Your task to perform on an android device: Clear the cart on ebay. Search for "macbook air" on ebay, select the first entry, add it to the cart, then select checkout. Image 0: 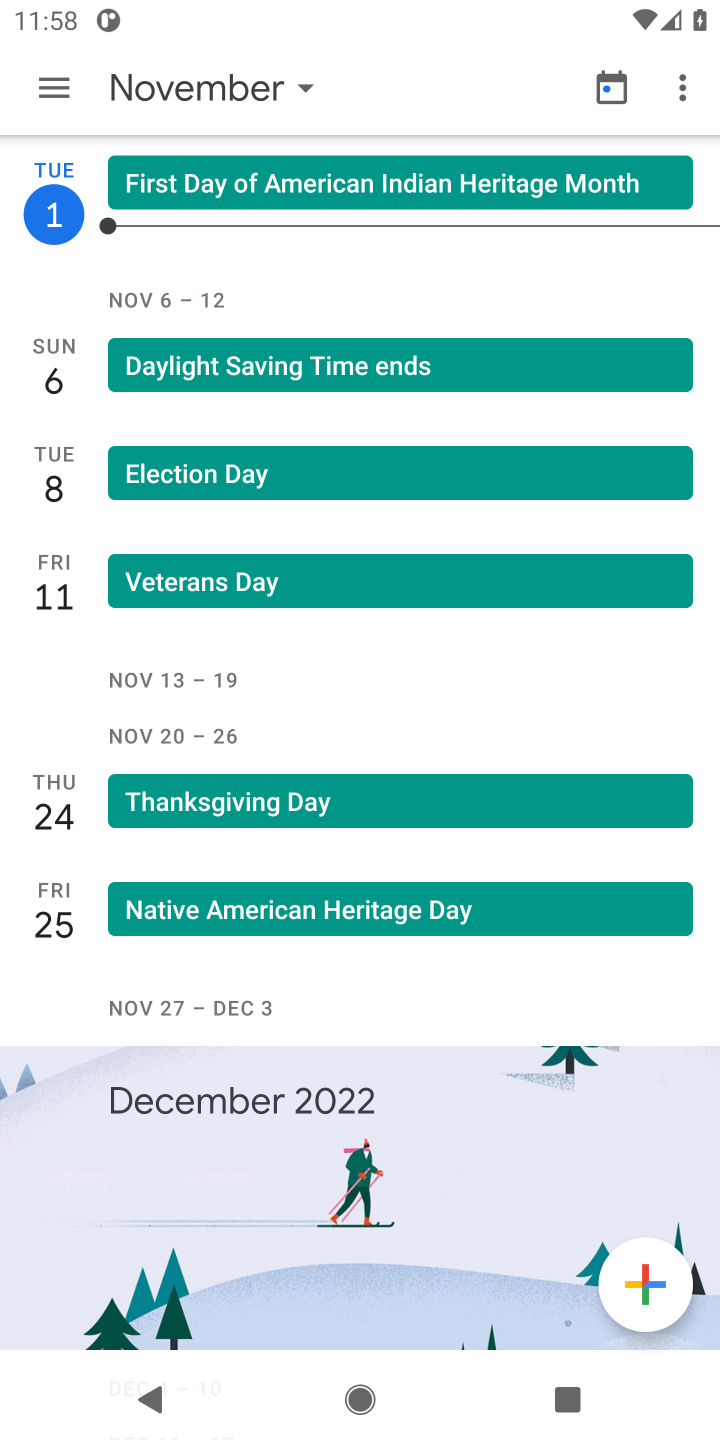
Step 0: press home button
Your task to perform on an android device: Clear the cart on ebay. Search for "macbook air" on ebay, select the first entry, add it to the cart, then select checkout. Image 1: 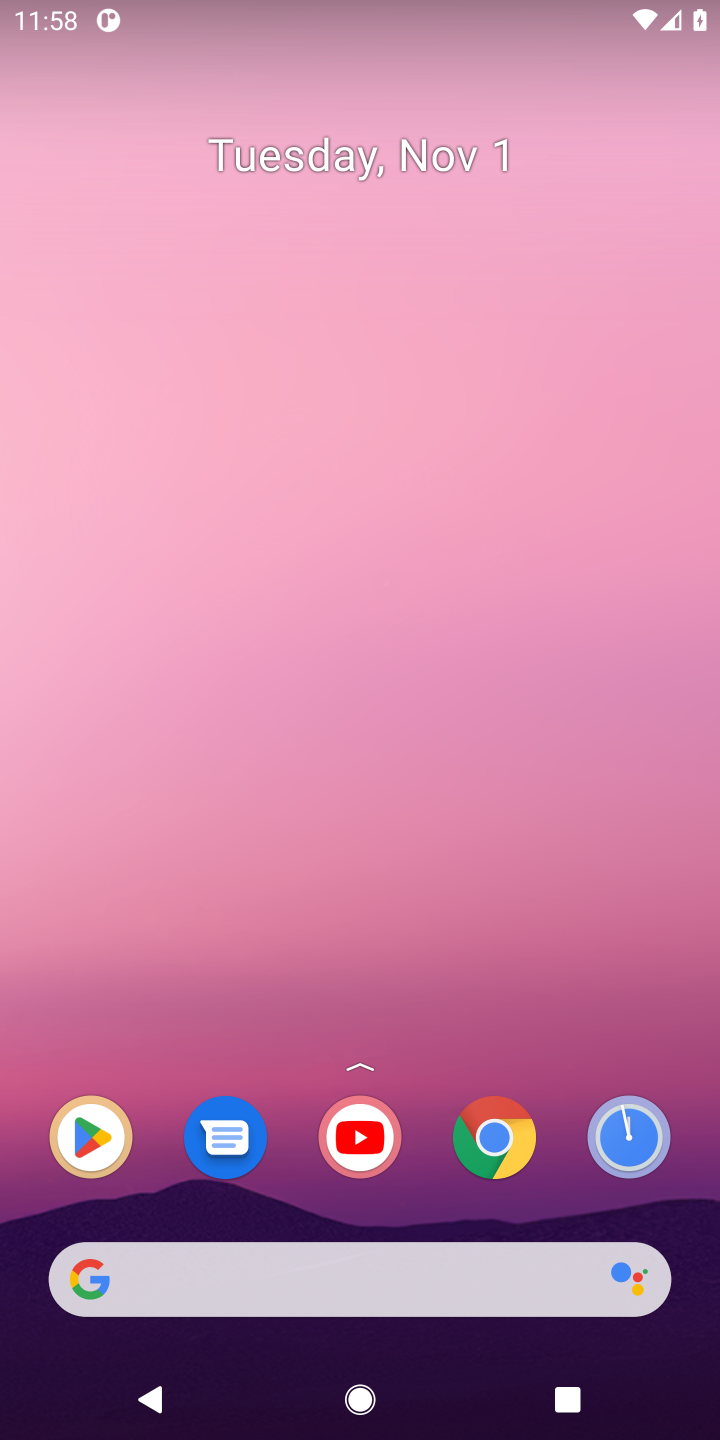
Step 1: click (316, 1259)
Your task to perform on an android device: Clear the cart on ebay. Search for "macbook air" on ebay, select the first entry, add it to the cart, then select checkout. Image 2: 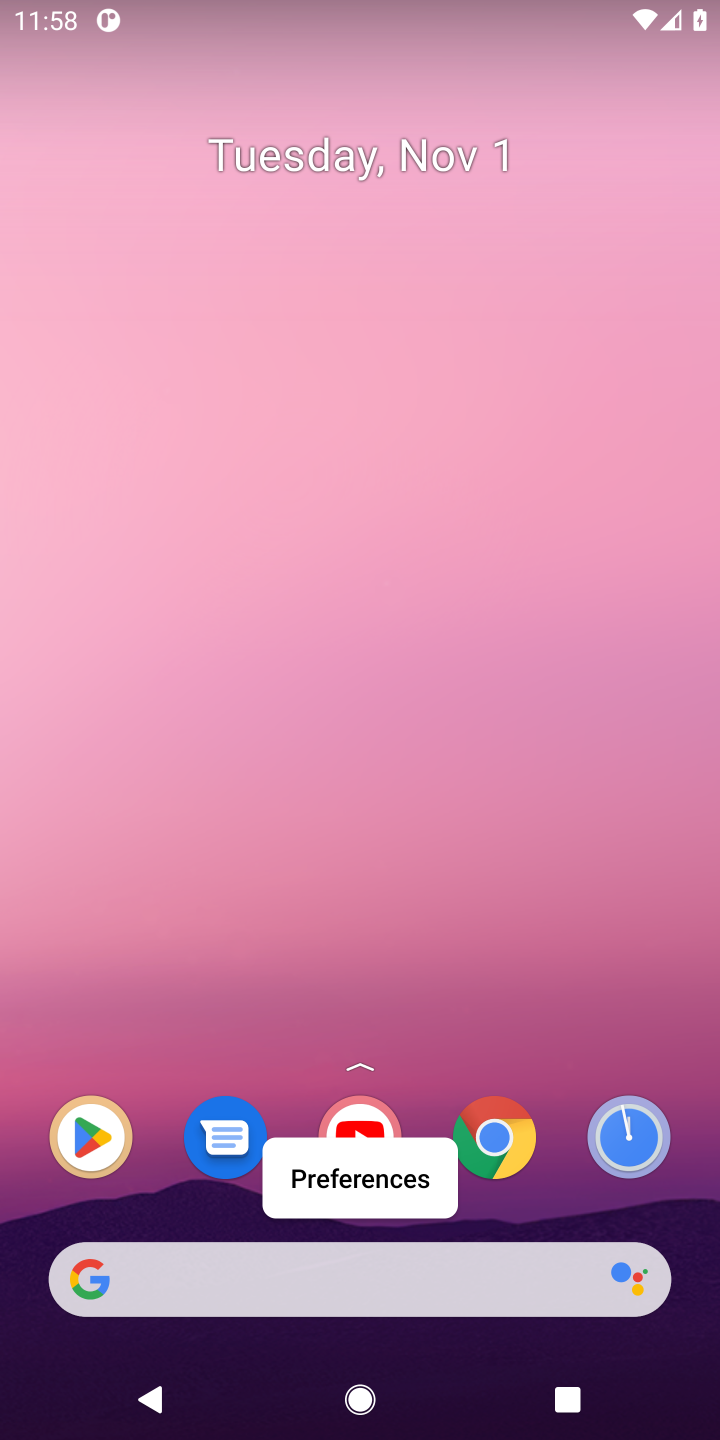
Step 2: click (318, 1261)
Your task to perform on an android device: Clear the cart on ebay. Search for "macbook air" on ebay, select the first entry, add it to the cart, then select checkout. Image 3: 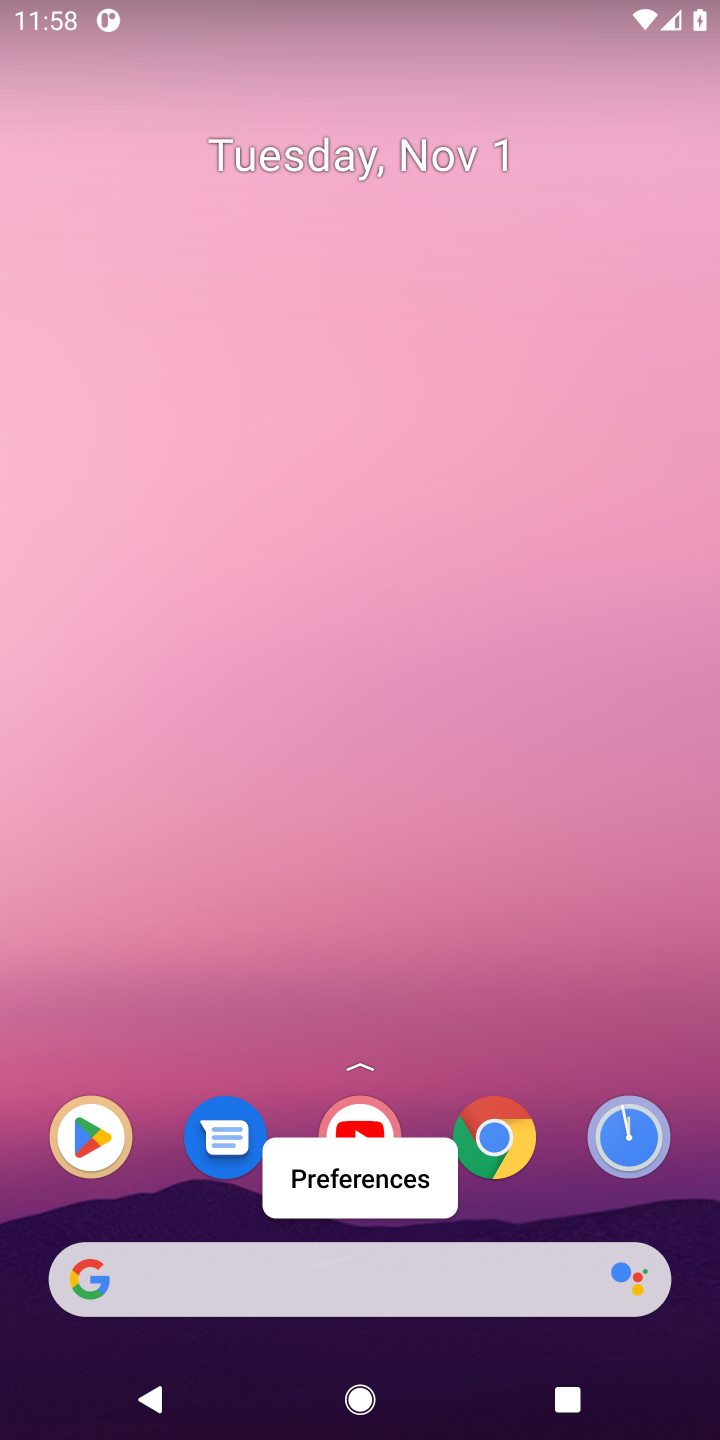
Step 3: click (295, 1298)
Your task to perform on an android device: Clear the cart on ebay. Search for "macbook air" on ebay, select the first entry, add it to the cart, then select checkout. Image 4: 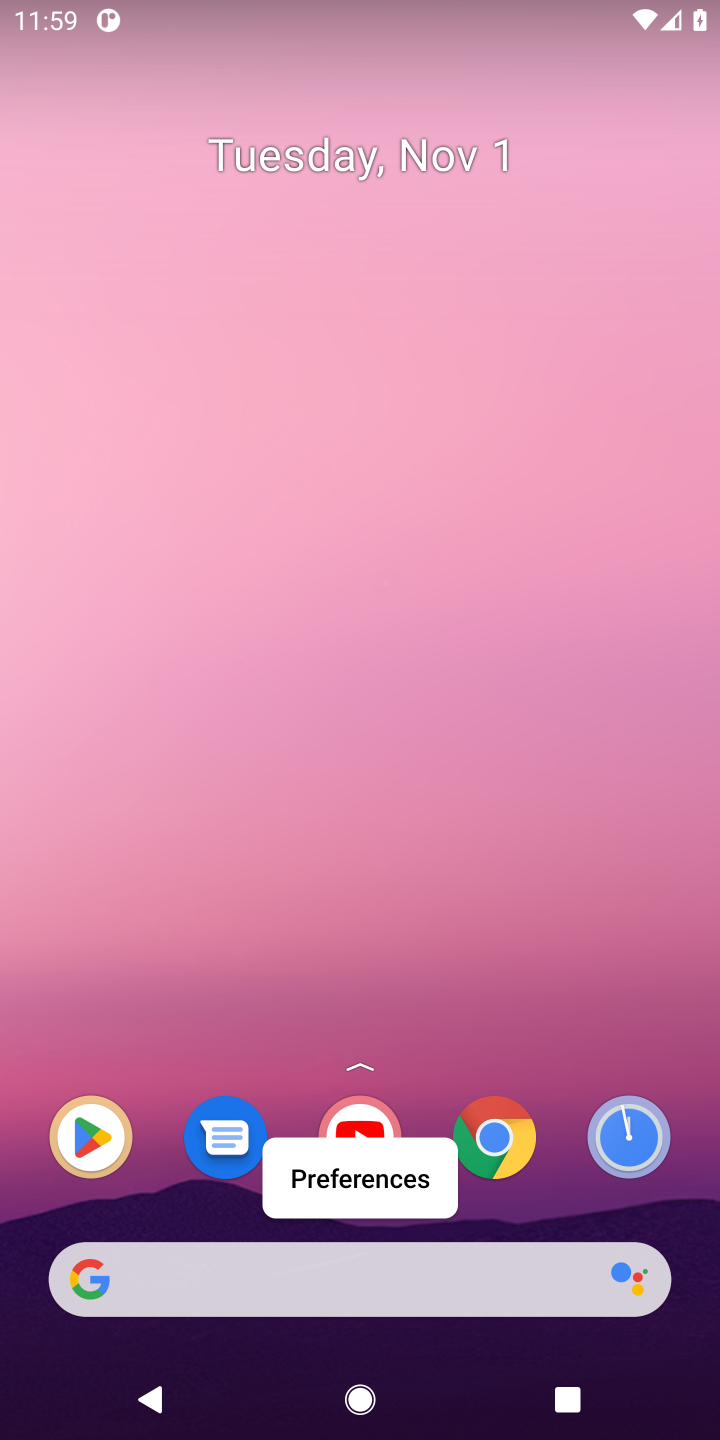
Step 4: click (317, 1280)
Your task to perform on an android device: Clear the cart on ebay. Search for "macbook air" on ebay, select the first entry, add it to the cart, then select checkout. Image 5: 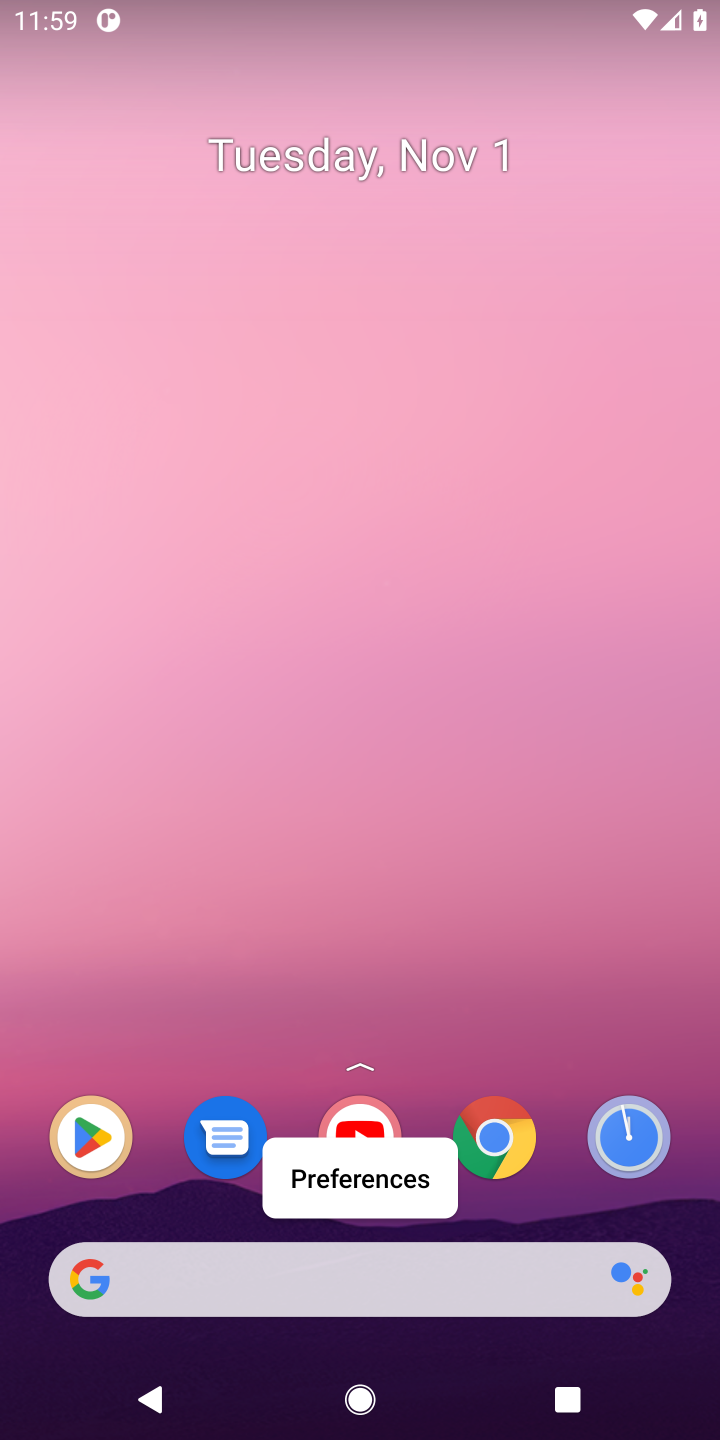
Step 5: click (315, 1283)
Your task to perform on an android device: Clear the cart on ebay. Search for "macbook air" on ebay, select the first entry, add it to the cart, then select checkout. Image 6: 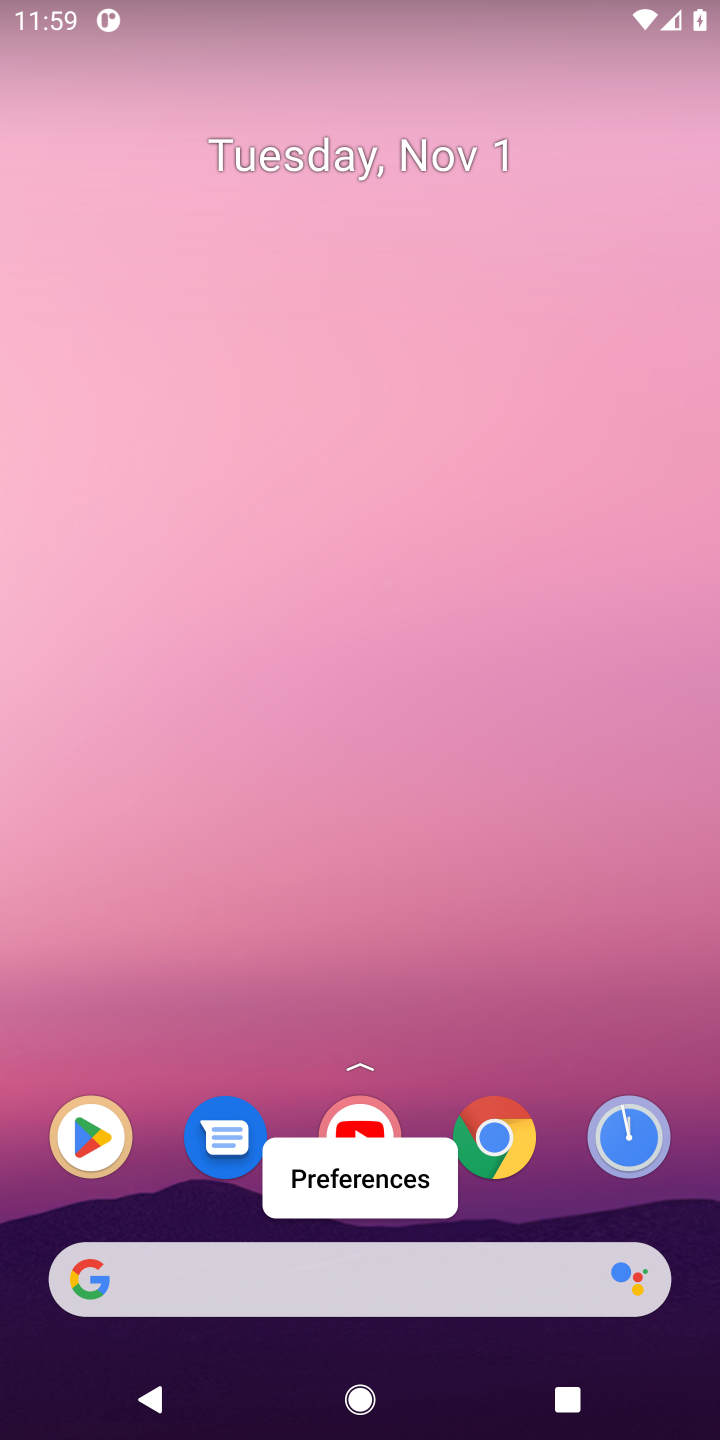
Step 6: click (518, 1142)
Your task to perform on an android device: Clear the cart on ebay. Search for "macbook air" on ebay, select the first entry, add it to the cart, then select checkout. Image 7: 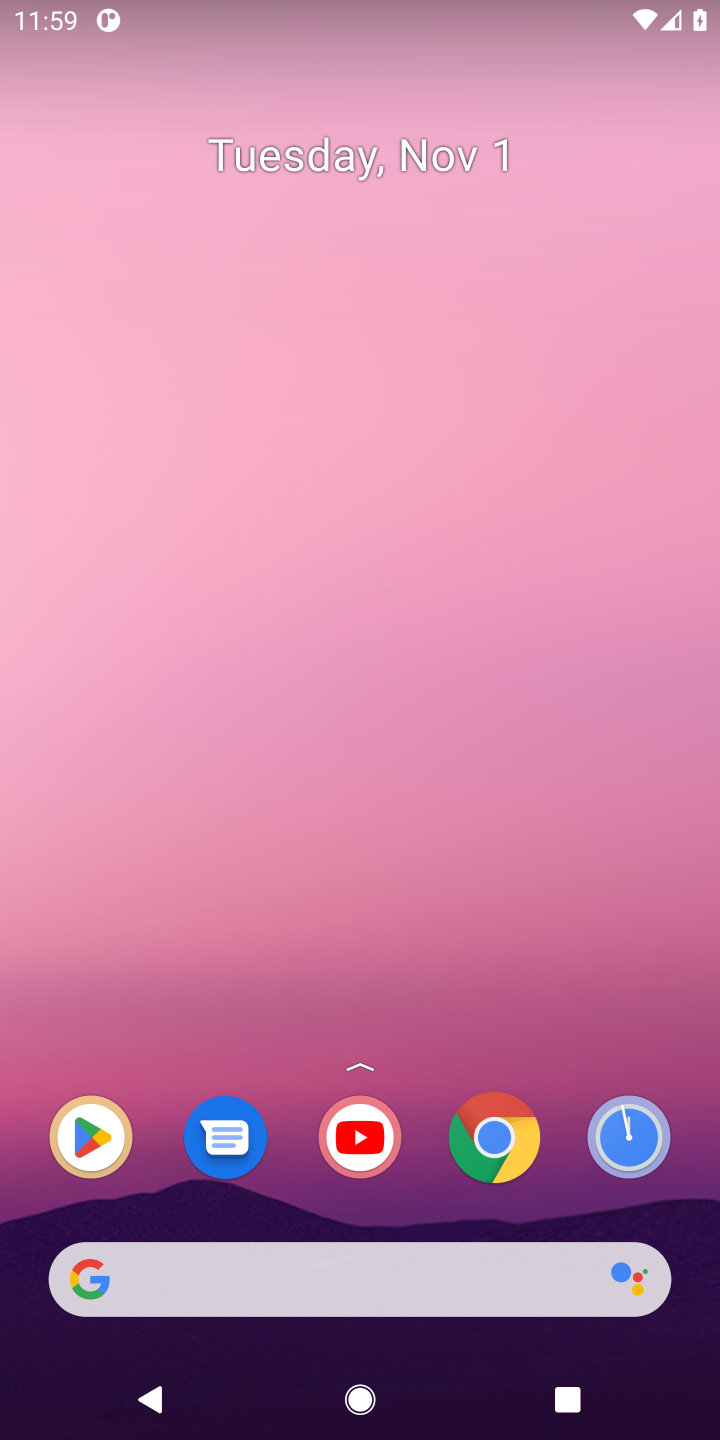
Step 7: click (518, 1142)
Your task to perform on an android device: Clear the cart on ebay. Search for "macbook air" on ebay, select the first entry, add it to the cart, then select checkout. Image 8: 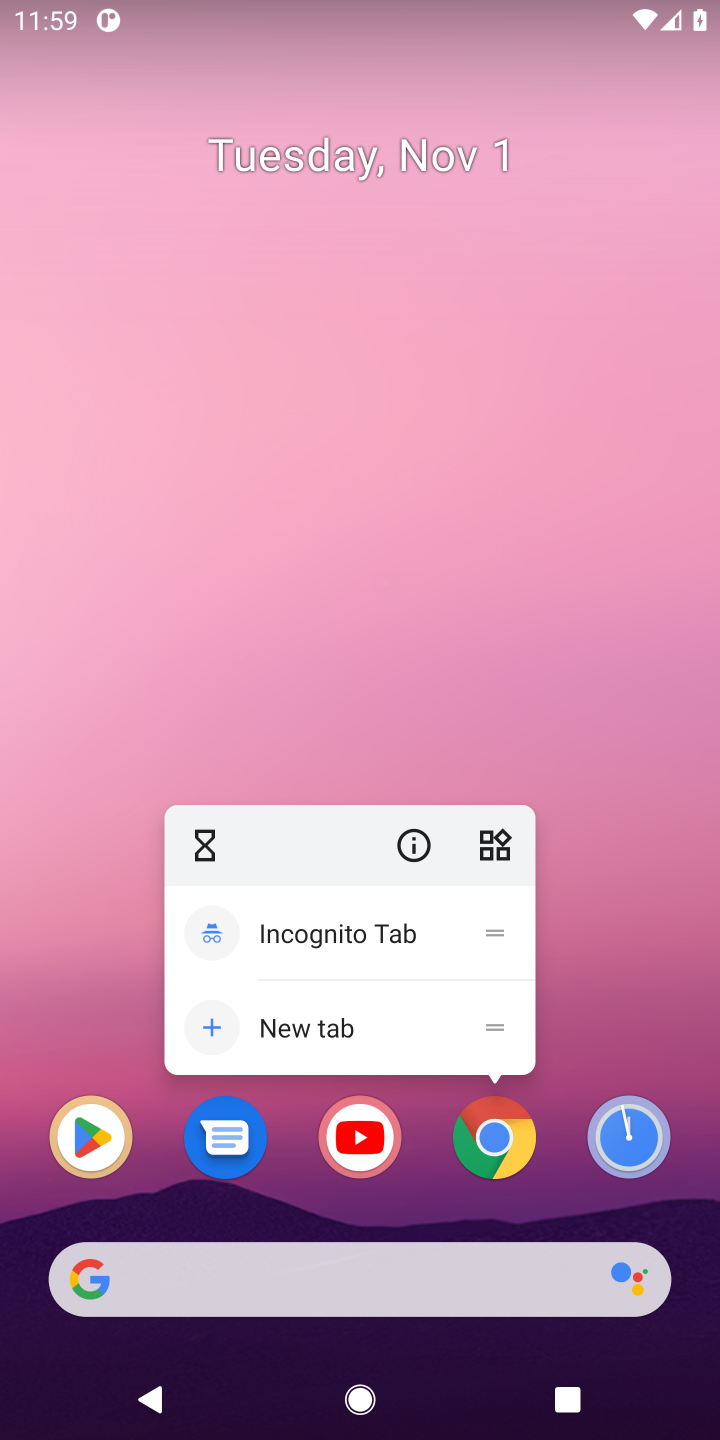
Step 8: click (496, 1147)
Your task to perform on an android device: Clear the cart on ebay. Search for "macbook air" on ebay, select the first entry, add it to the cart, then select checkout. Image 9: 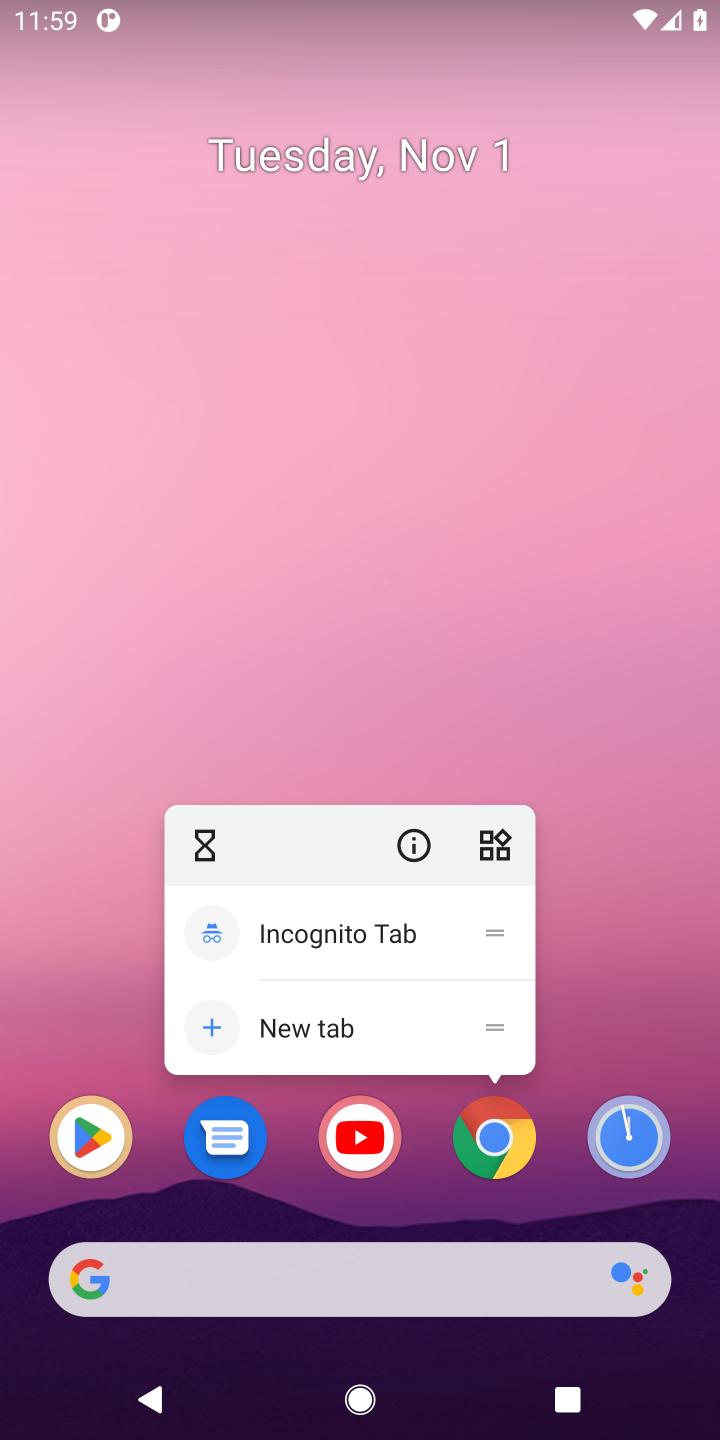
Step 9: click (496, 1147)
Your task to perform on an android device: Clear the cart on ebay. Search for "macbook air" on ebay, select the first entry, add it to the cart, then select checkout. Image 10: 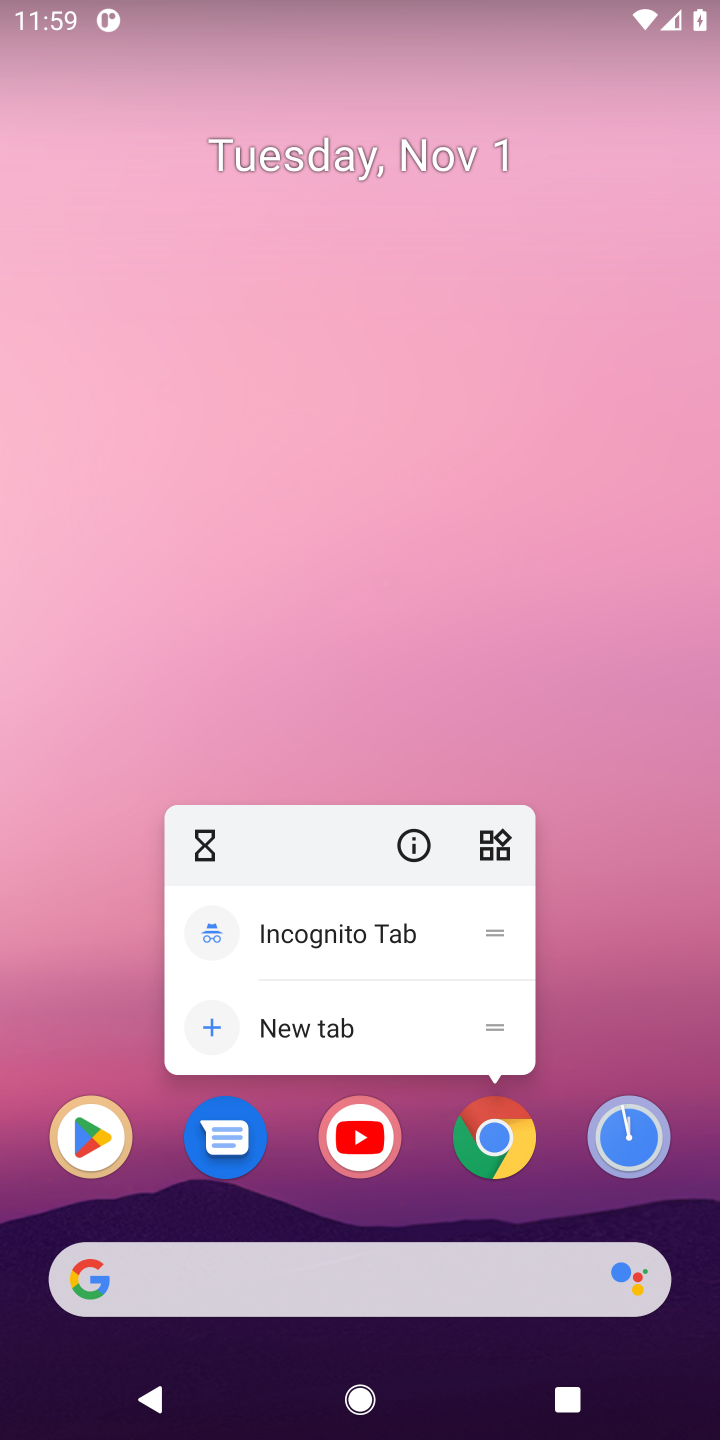
Step 10: click (496, 1147)
Your task to perform on an android device: Clear the cart on ebay. Search for "macbook air" on ebay, select the first entry, add it to the cart, then select checkout. Image 11: 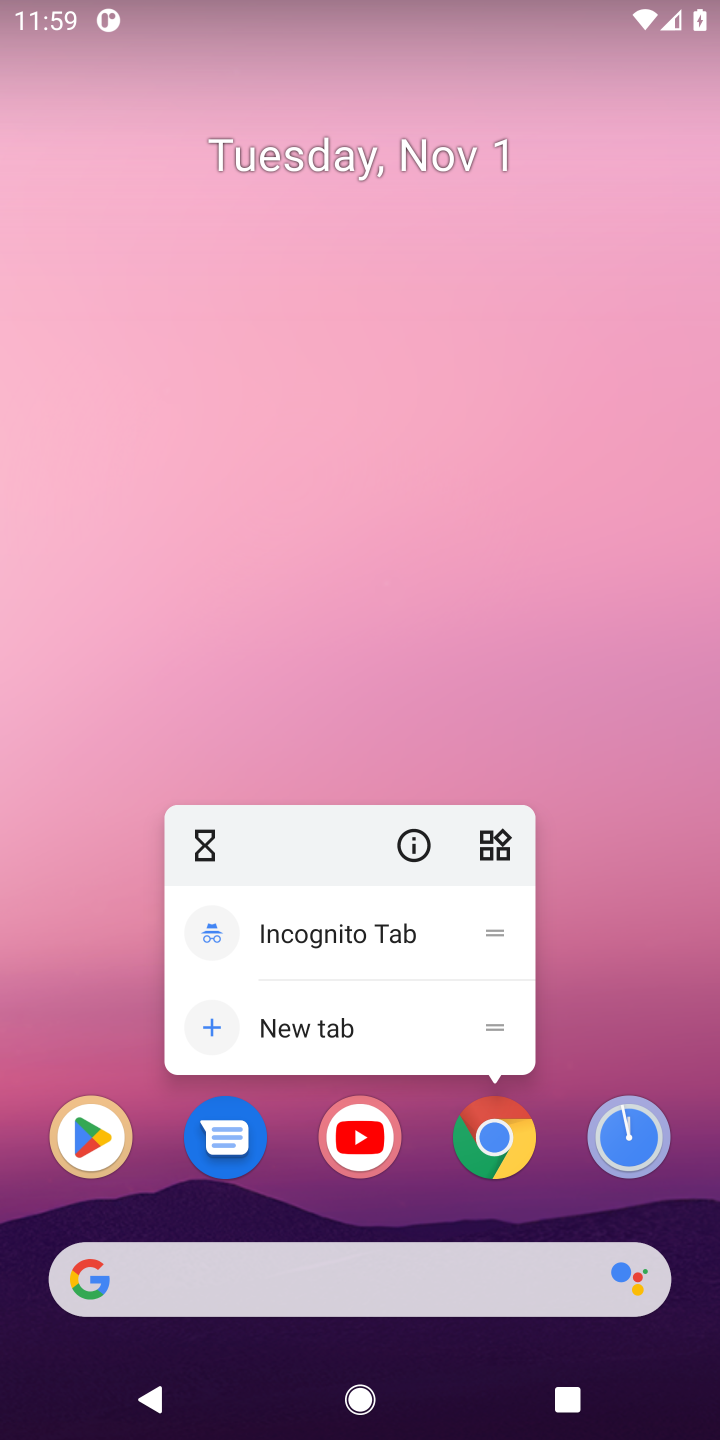
Step 11: click (496, 1147)
Your task to perform on an android device: Clear the cart on ebay. Search for "macbook air" on ebay, select the first entry, add it to the cart, then select checkout. Image 12: 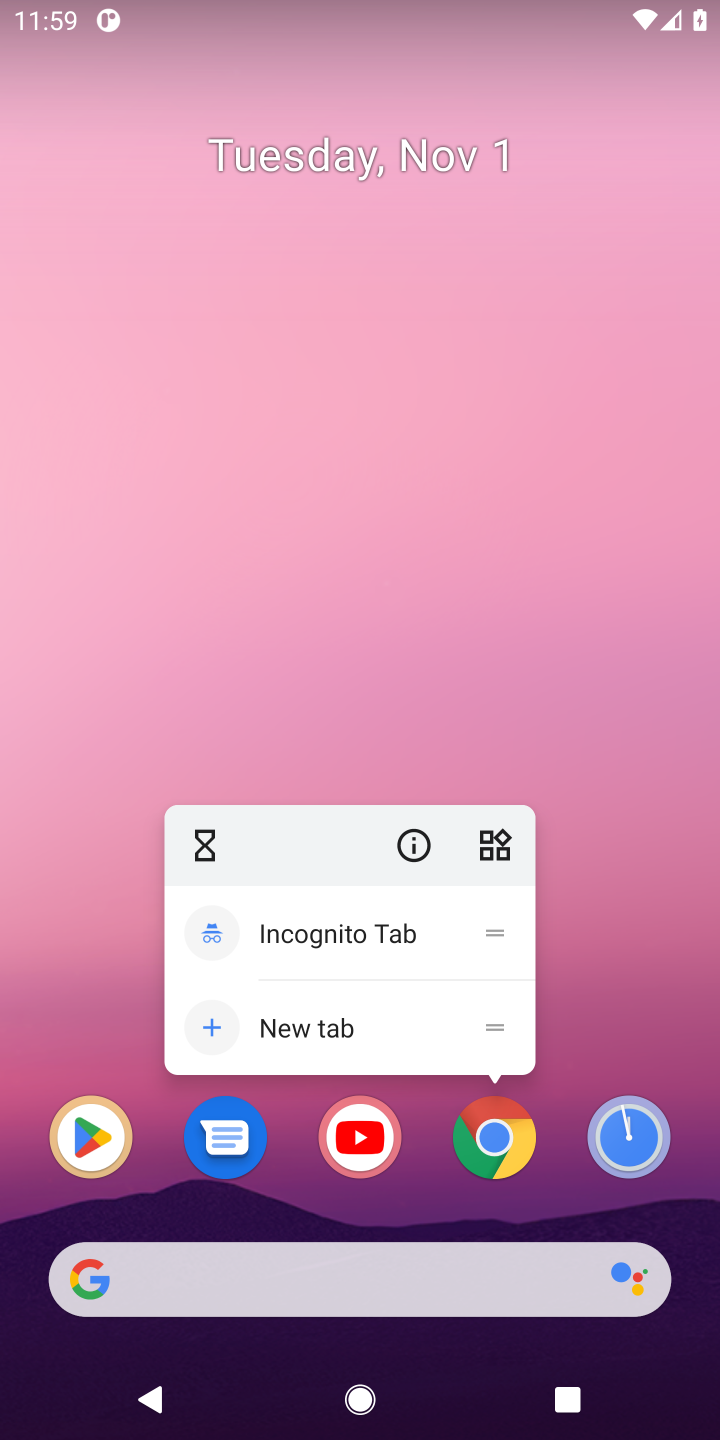
Step 12: click (235, 463)
Your task to perform on an android device: Clear the cart on ebay. Search for "macbook air" on ebay, select the first entry, add it to the cart, then select checkout. Image 13: 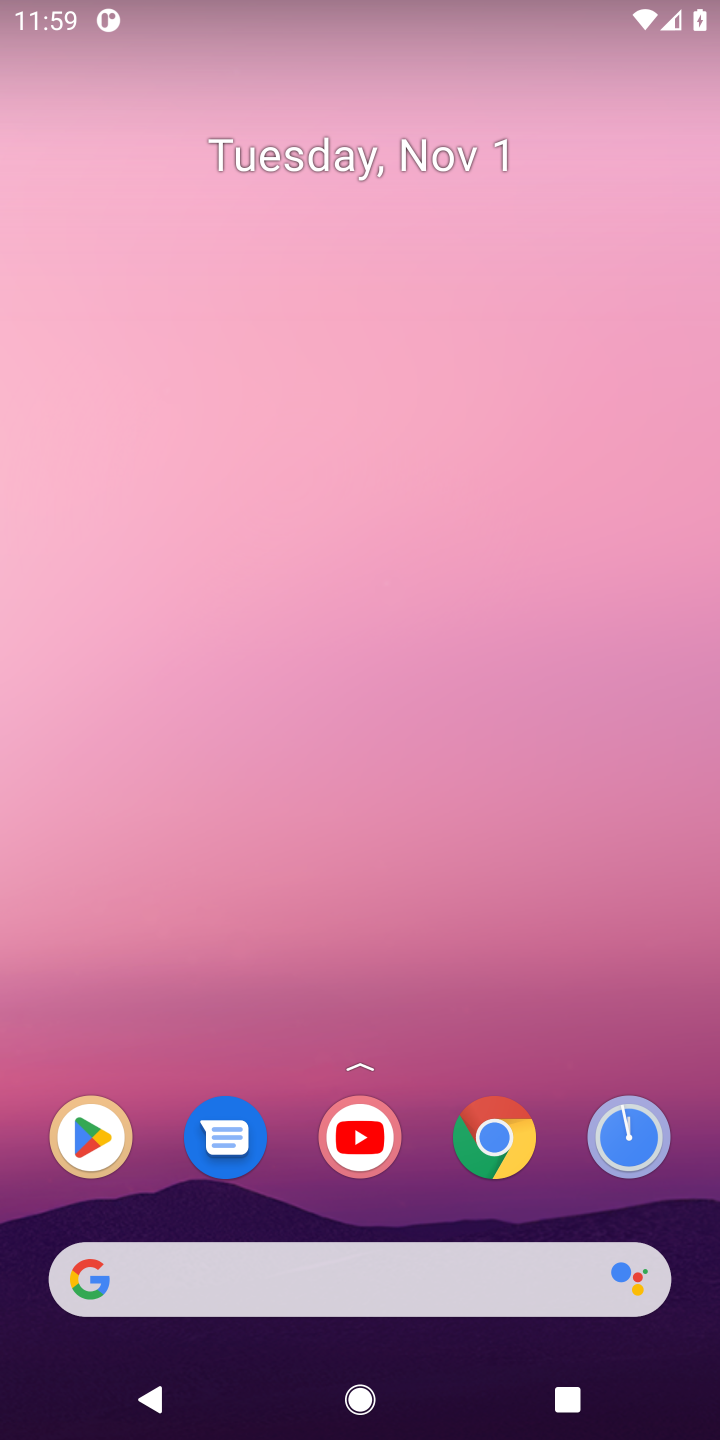
Step 13: click (476, 1115)
Your task to perform on an android device: Clear the cart on ebay. Search for "macbook air" on ebay, select the first entry, add it to the cart, then select checkout. Image 14: 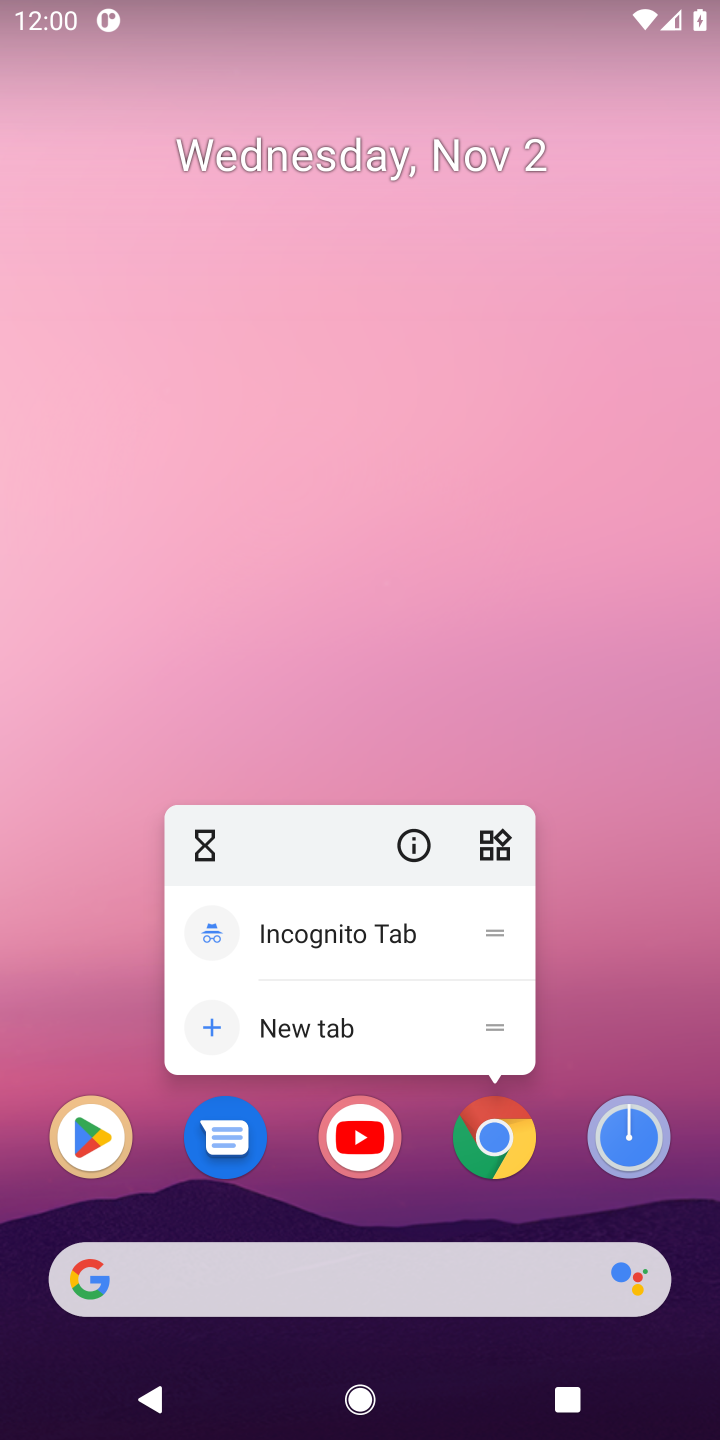
Step 14: click (480, 1157)
Your task to perform on an android device: Clear the cart on ebay. Search for "macbook air" on ebay, select the first entry, add it to the cart, then select checkout. Image 15: 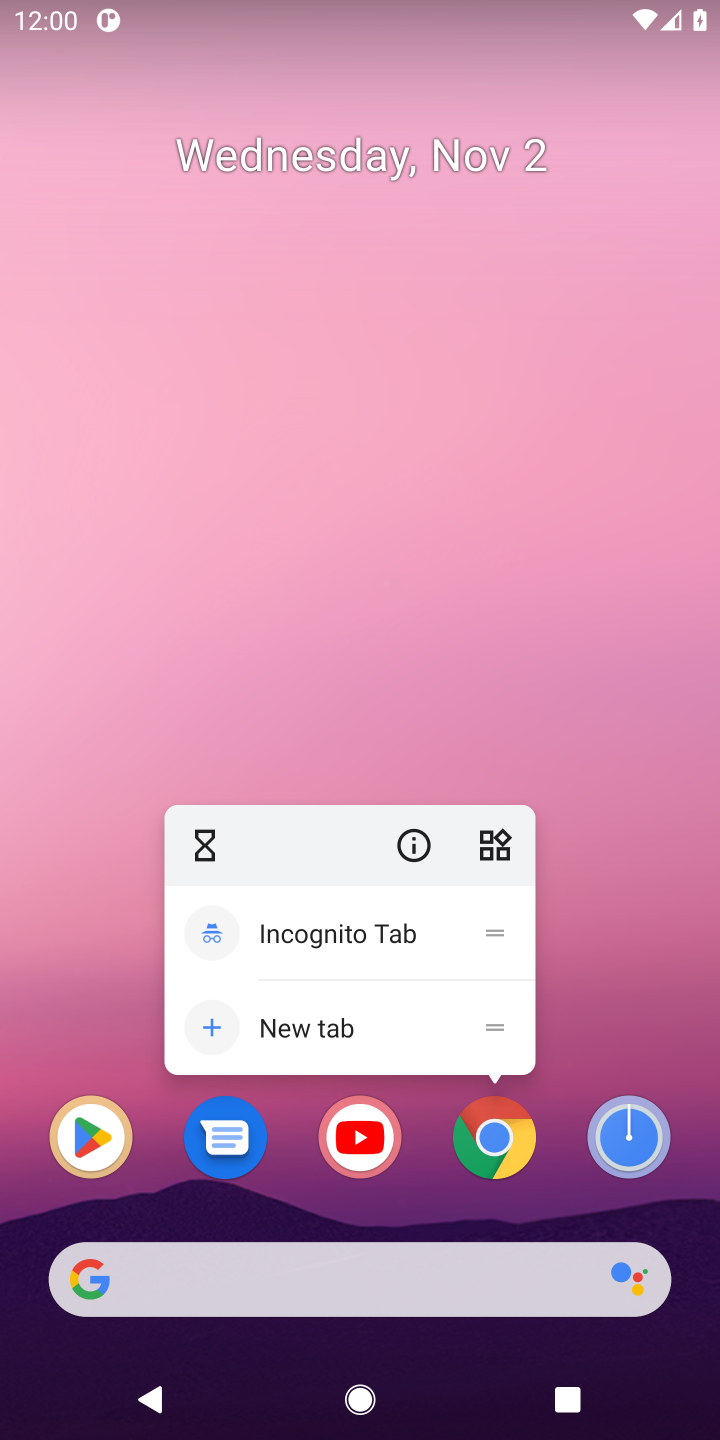
Step 15: click (501, 1144)
Your task to perform on an android device: Clear the cart on ebay. Search for "macbook air" on ebay, select the first entry, add it to the cart, then select checkout. Image 16: 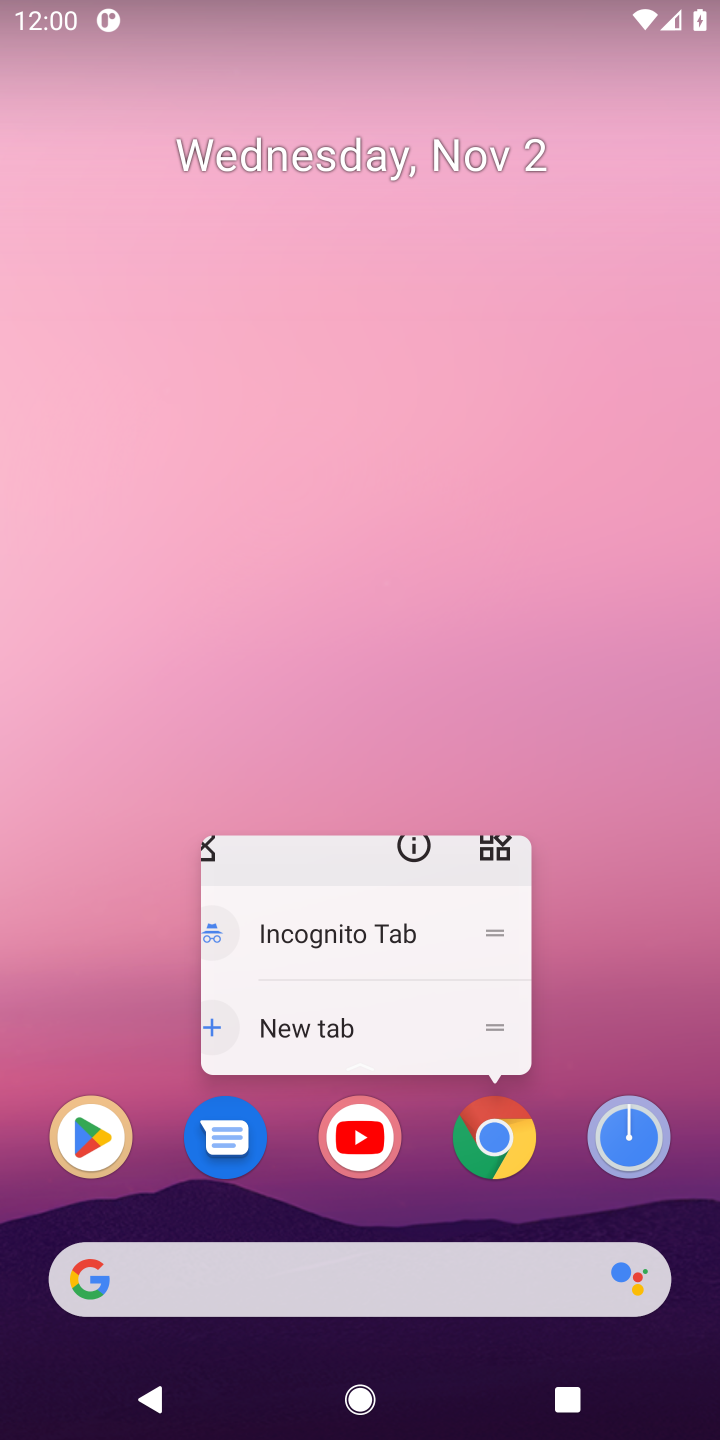
Step 16: click (501, 1144)
Your task to perform on an android device: Clear the cart on ebay. Search for "macbook air" on ebay, select the first entry, add it to the cart, then select checkout. Image 17: 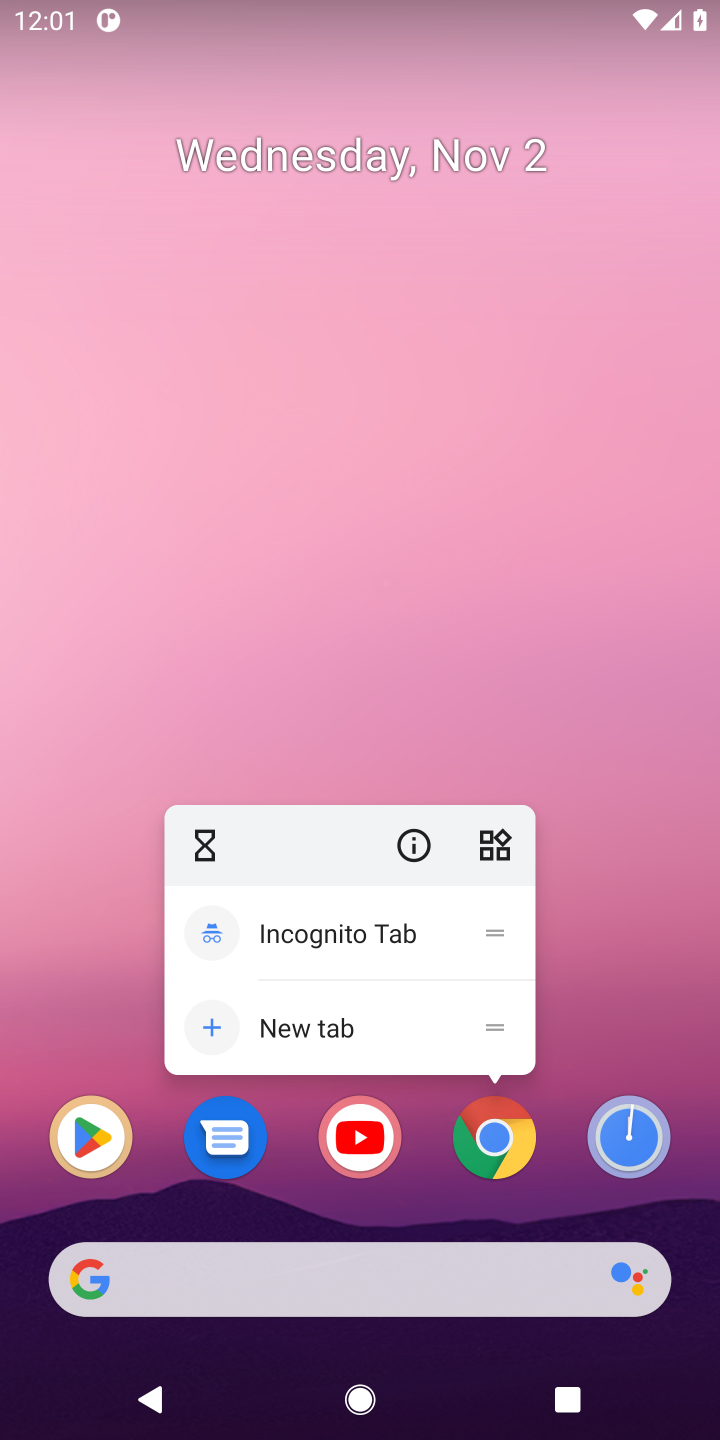
Step 17: click (359, 1276)
Your task to perform on an android device: Clear the cart on ebay. Search for "macbook air" on ebay, select the first entry, add it to the cart, then select checkout. Image 18: 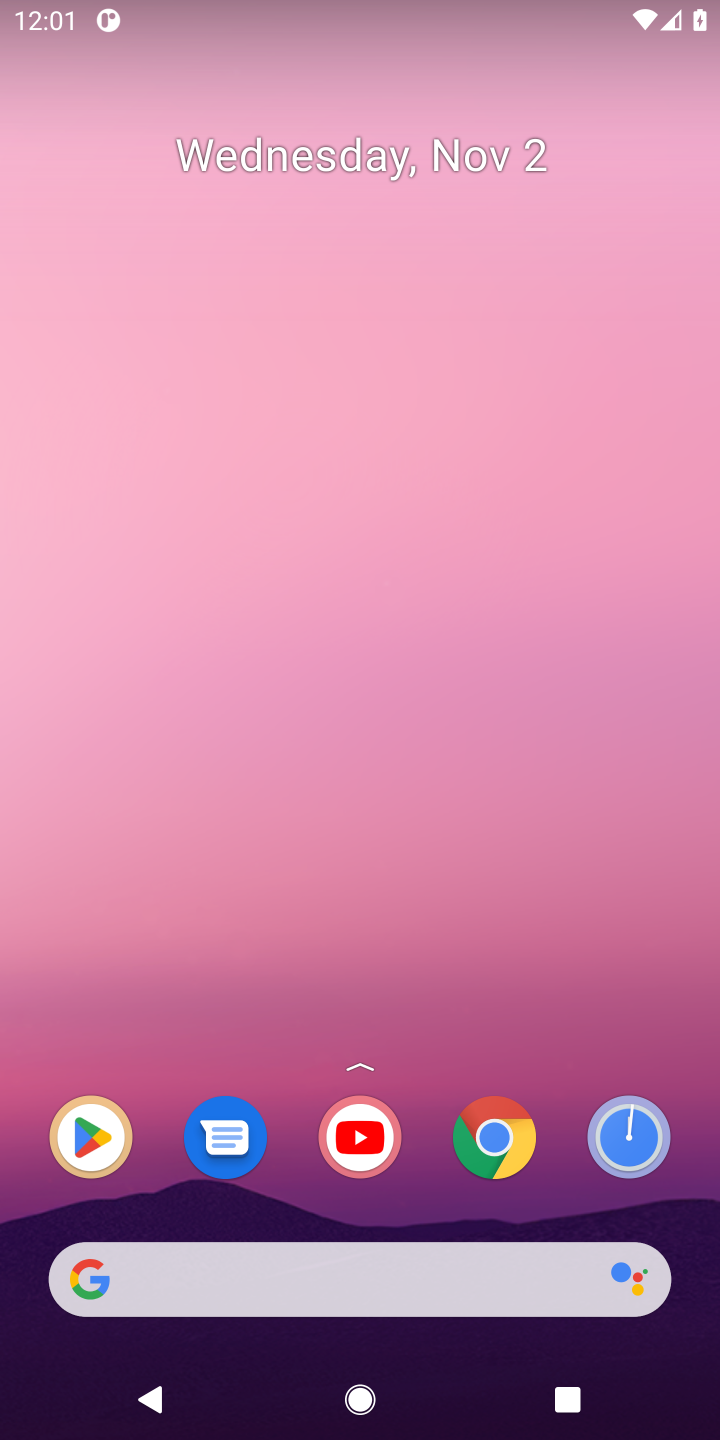
Step 18: click (359, 1276)
Your task to perform on an android device: Clear the cart on ebay. Search for "macbook air" on ebay, select the first entry, add it to the cart, then select checkout. Image 19: 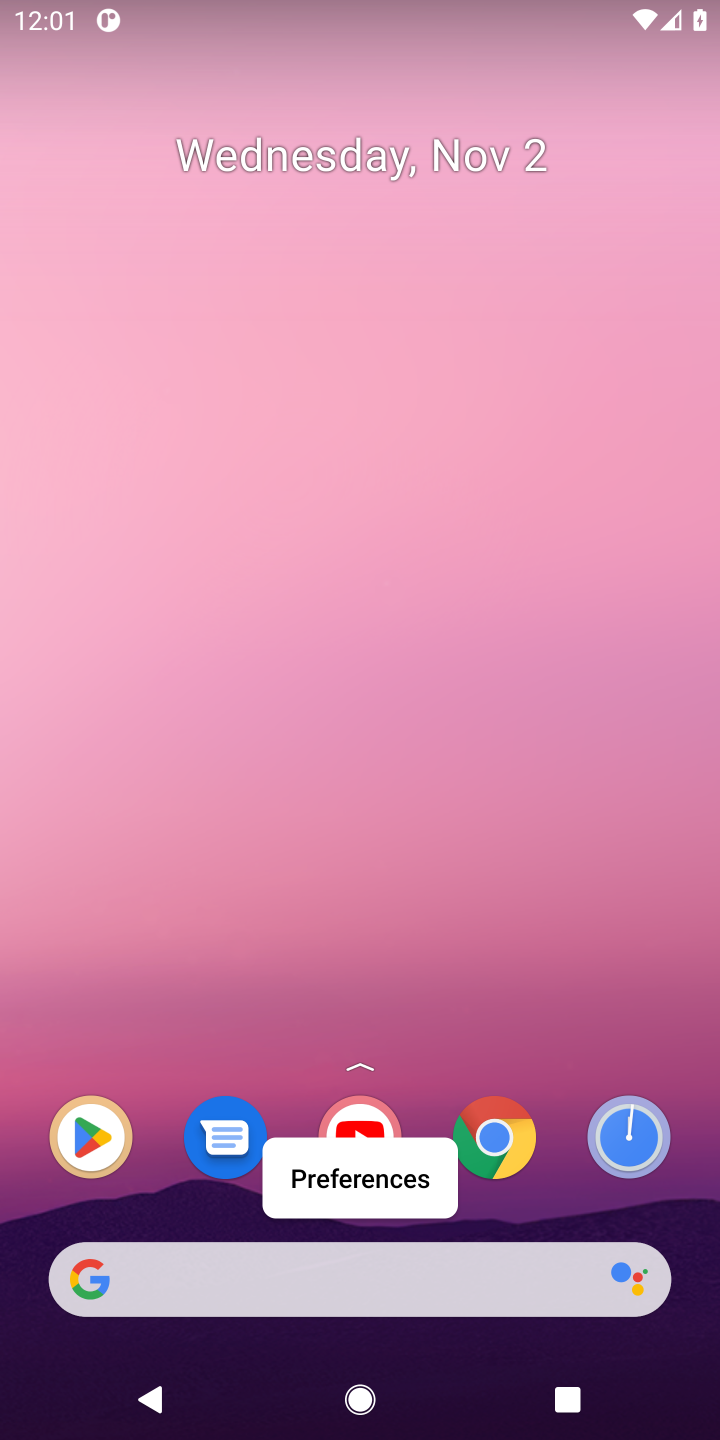
Step 19: click (359, 1276)
Your task to perform on an android device: Clear the cart on ebay. Search for "macbook air" on ebay, select the first entry, add it to the cart, then select checkout. Image 20: 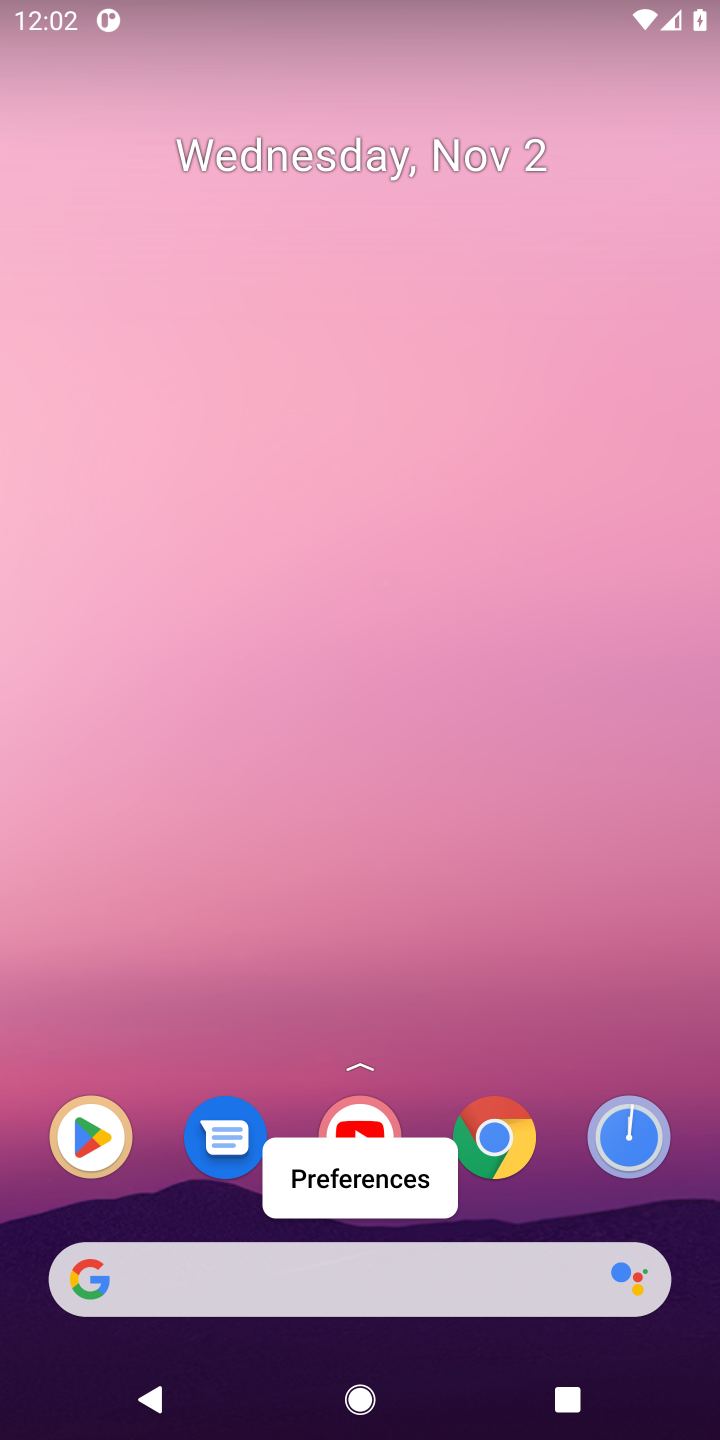
Step 20: task complete